Your task to perform on an android device: open wifi settings Image 0: 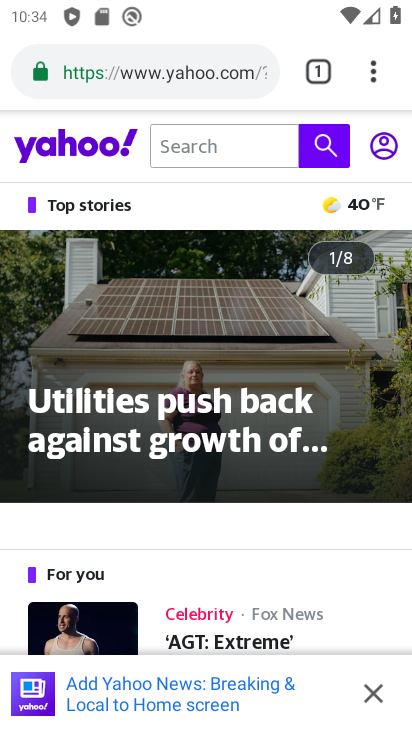
Step 0: click (367, 693)
Your task to perform on an android device: open wifi settings Image 1: 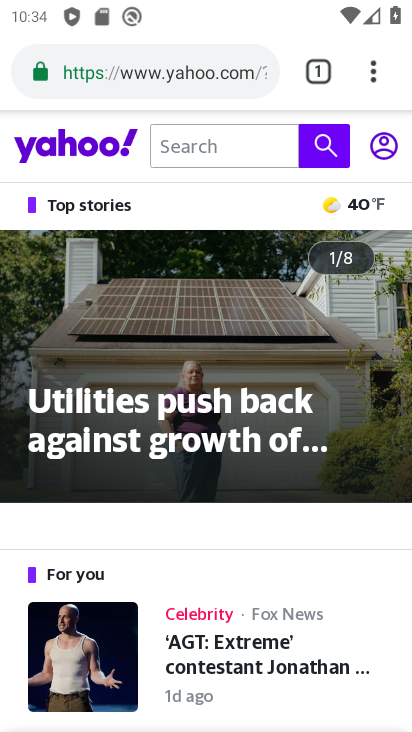
Step 1: press home button
Your task to perform on an android device: open wifi settings Image 2: 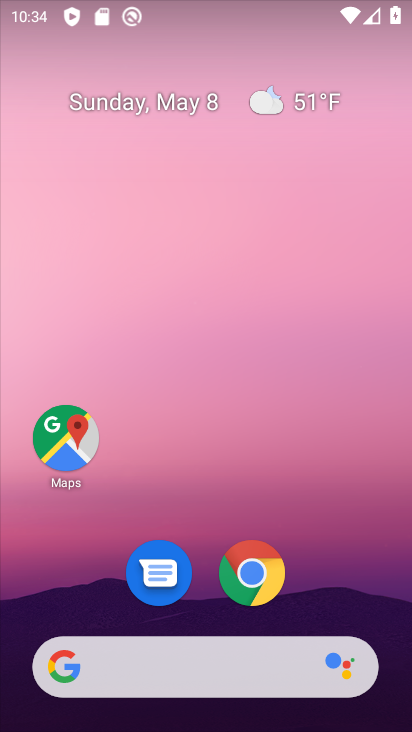
Step 2: drag from (232, 638) to (220, 175)
Your task to perform on an android device: open wifi settings Image 3: 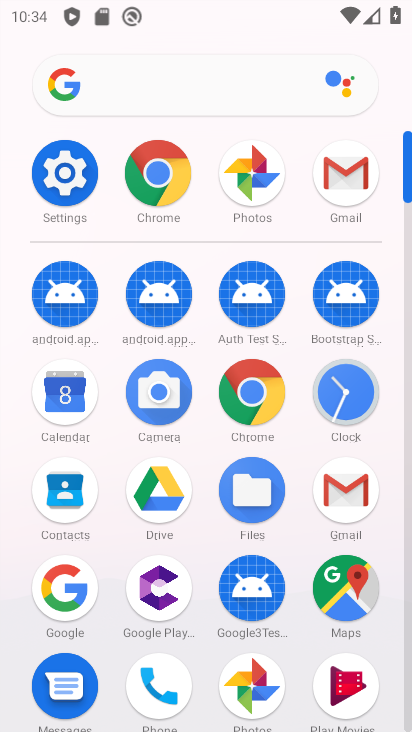
Step 3: click (56, 179)
Your task to perform on an android device: open wifi settings Image 4: 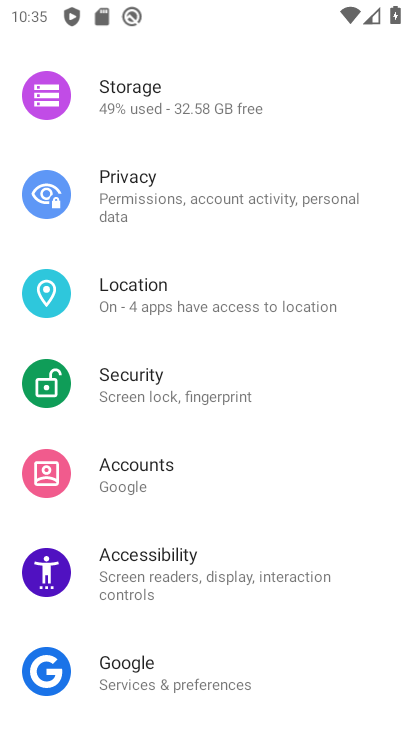
Step 4: drag from (197, 124) to (209, 525)
Your task to perform on an android device: open wifi settings Image 5: 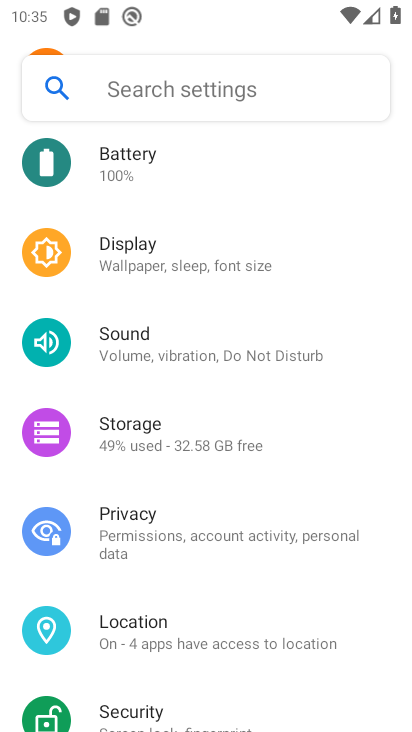
Step 5: drag from (186, 206) to (191, 597)
Your task to perform on an android device: open wifi settings Image 6: 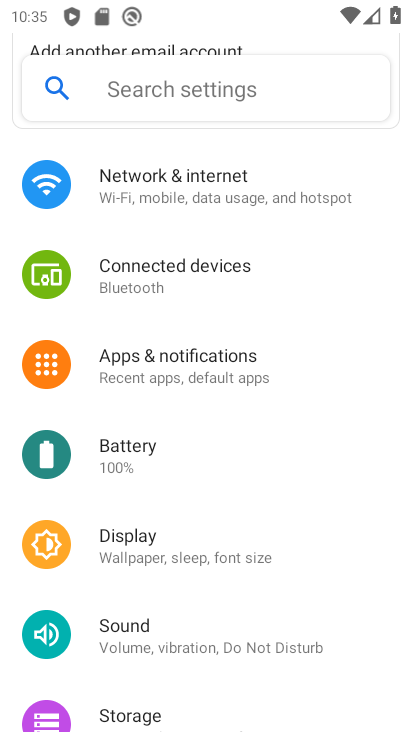
Step 6: click (166, 185)
Your task to perform on an android device: open wifi settings Image 7: 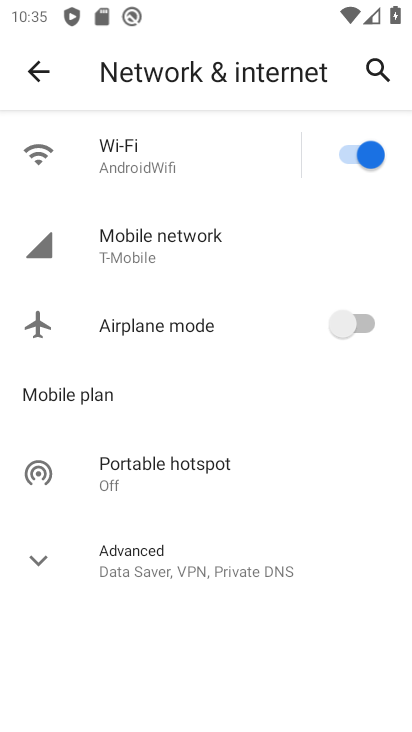
Step 7: click (145, 167)
Your task to perform on an android device: open wifi settings Image 8: 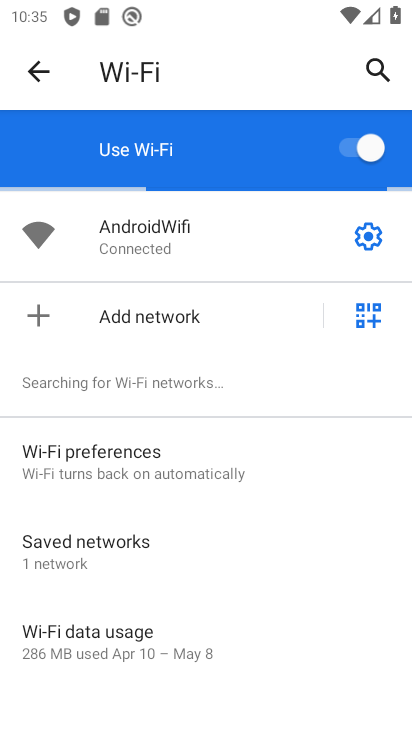
Step 8: click (365, 244)
Your task to perform on an android device: open wifi settings Image 9: 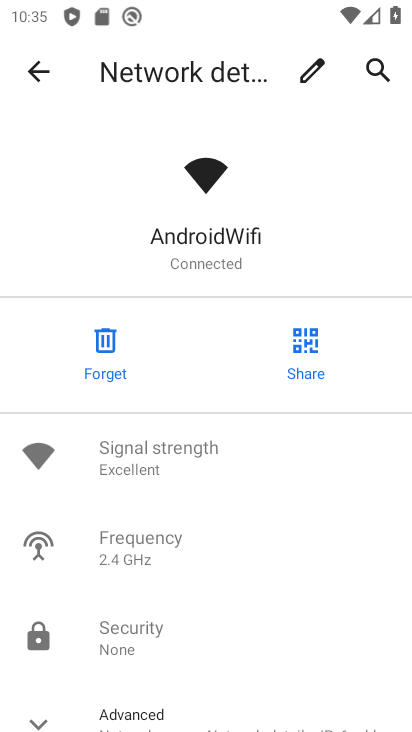
Step 9: drag from (208, 682) to (211, 313)
Your task to perform on an android device: open wifi settings Image 10: 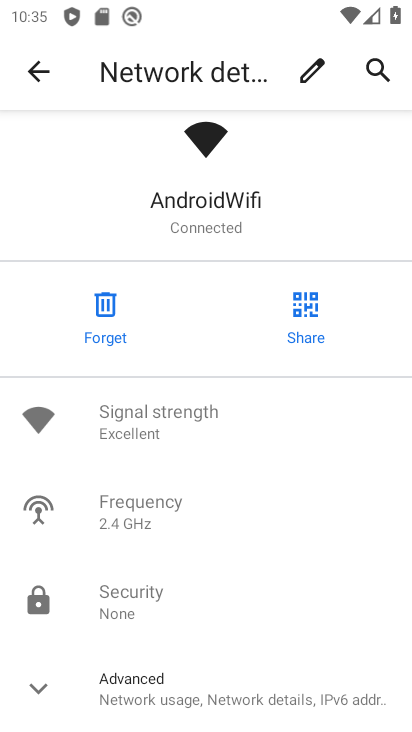
Step 10: click (133, 693)
Your task to perform on an android device: open wifi settings Image 11: 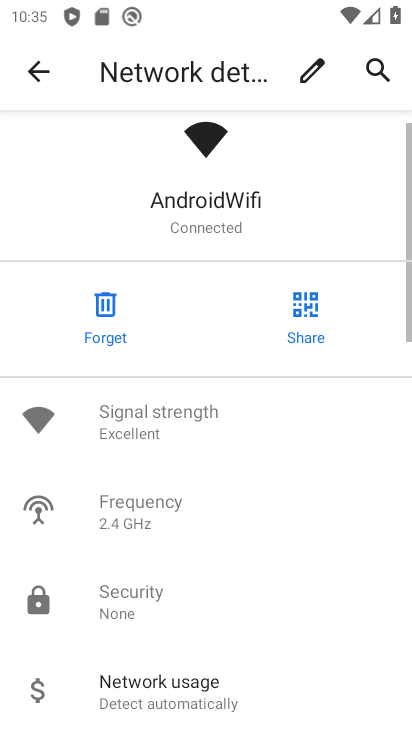
Step 11: task complete